Your task to perform on an android device: Open Maps and search for coffee Image 0: 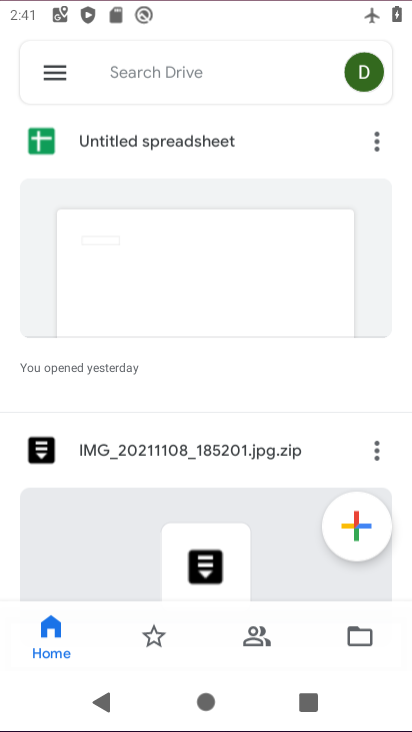
Step 0: drag from (225, 571) to (299, 292)
Your task to perform on an android device: Open Maps and search for coffee Image 1: 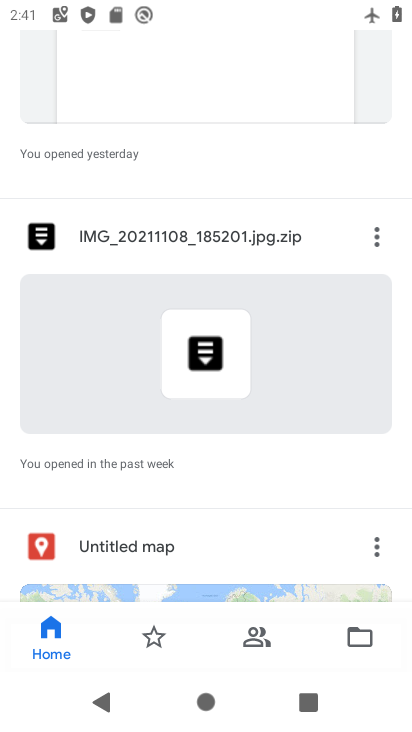
Step 1: drag from (225, 556) to (326, 227)
Your task to perform on an android device: Open Maps and search for coffee Image 2: 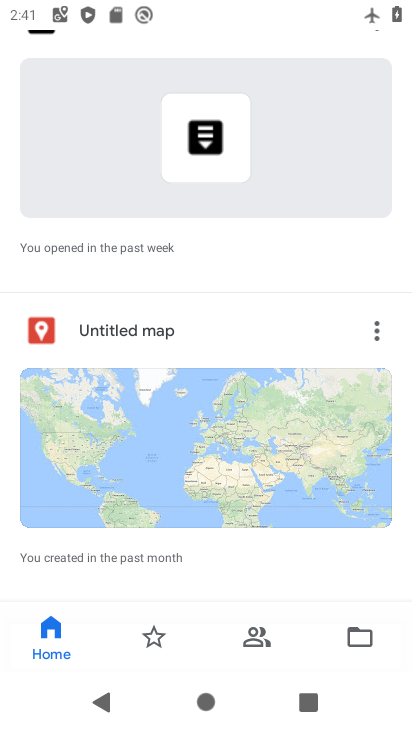
Step 2: drag from (191, 577) to (310, 288)
Your task to perform on an android device: Open Maps and search for coffee Image 3: 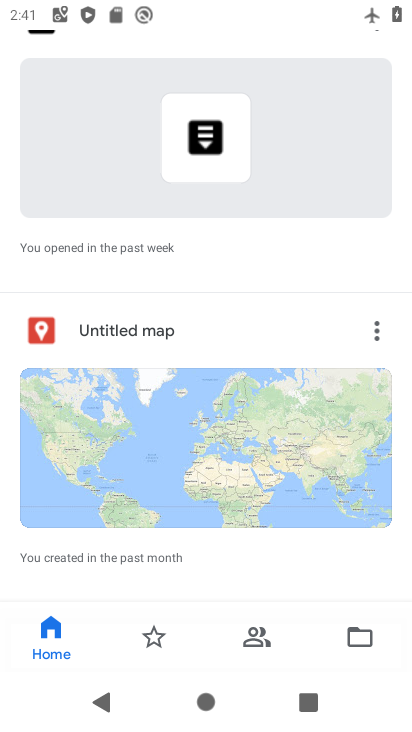
Step 3: drag from (218, 601) to (285, 316)
Your task to perform on an android device: Open Maps and search for coffee Image 4: 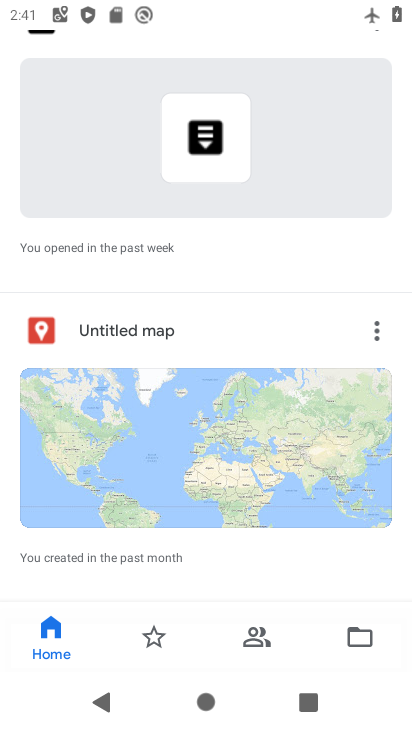
Step 4: drag from (234, 530) to (304, 263)
Your task to perform on an android device: Open Maps and search for coffee Image 5: 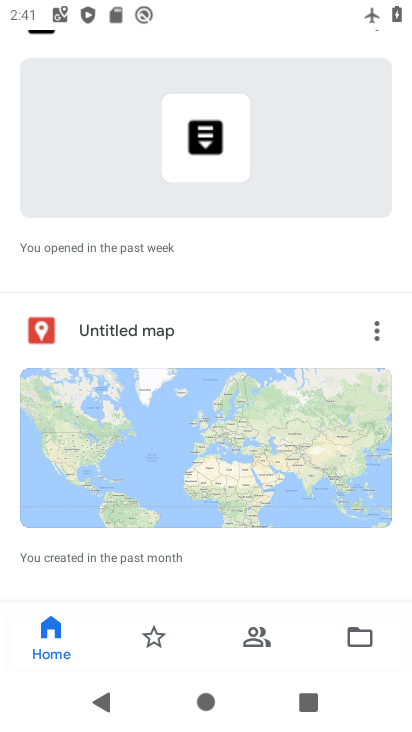
Step 5: drag from (229, 570) to (250, 289)
Your task to perform on an android device: Open Maps and search for coffee Image 6: 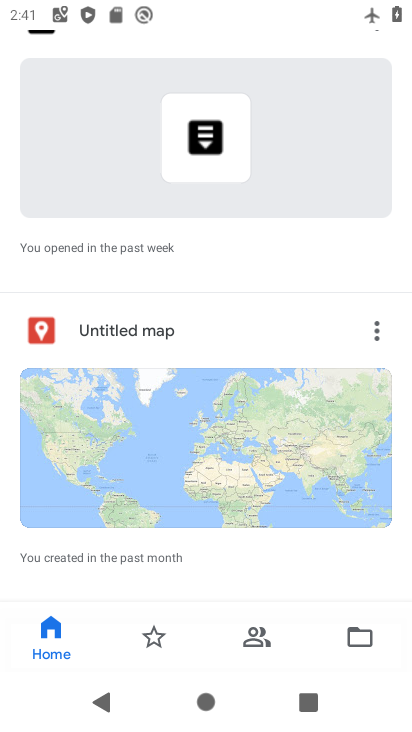
Step 6: drag from (258, 253) to (392, 698)
Your task to perform on an android device: Open Maps and search for coffee Image 7: 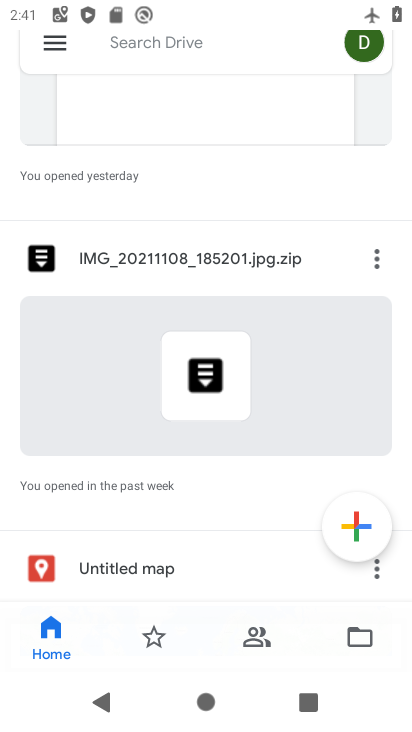
Step 7: drag from (233, 107) to (374, 708)
Your task to perform on an android device: Open Maps and search for coffee Image 8: 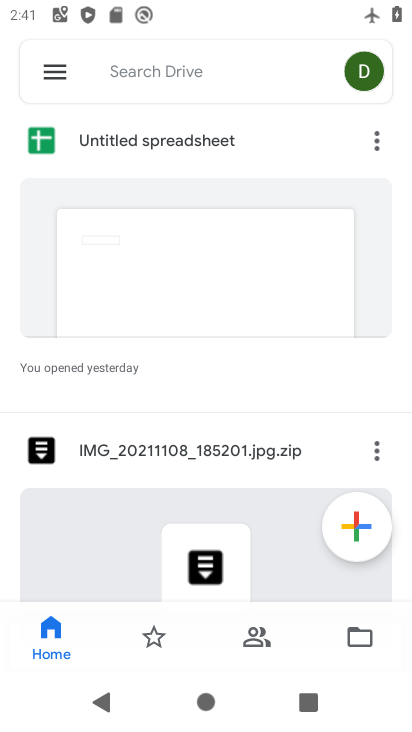
Step 8: press home button
Your task to perform on an android device: Open Maps and search for coffee Image 9: 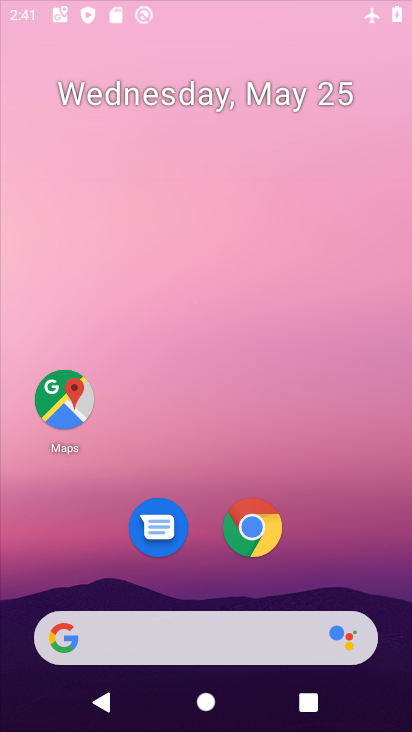
Step 9: drag from (205, 552) to (262, 145)
Your task to perform on an android device: Open Maps and search for coffee Image 10: 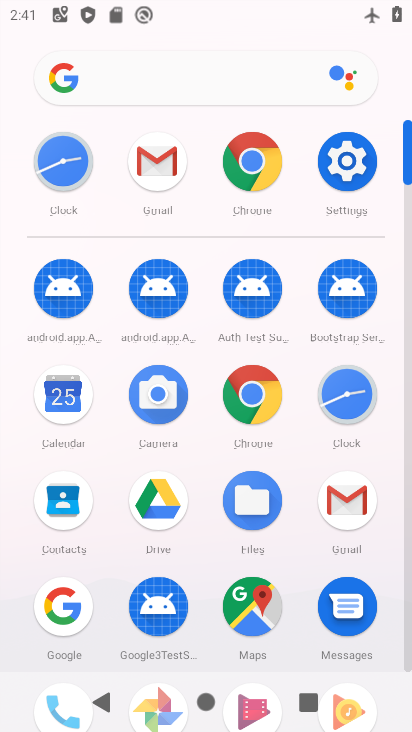
Step 10: click (140, 61)
Your task to perform on an android device: Open Maps and search for coffee Image 11: 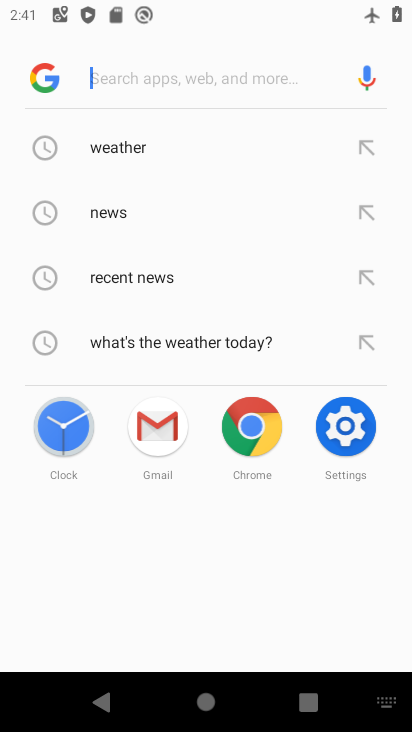
Step 11: press home button
Your task to perform on an android device: Open Maps and search for coffee Image 12: 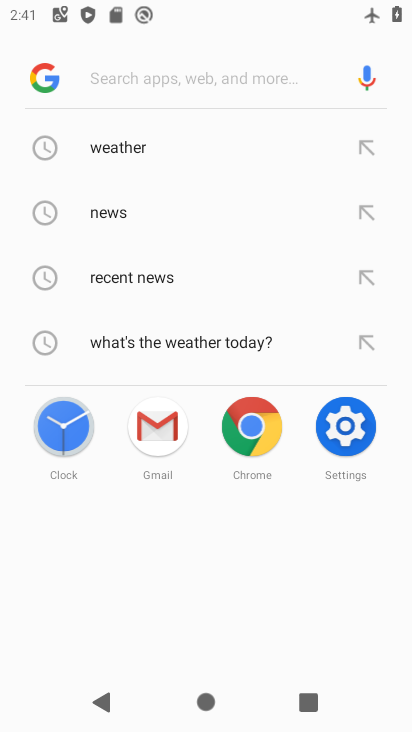
Step 12: press home button
Your task to perform on an android device: Open Maps and search for coffee Image 13: 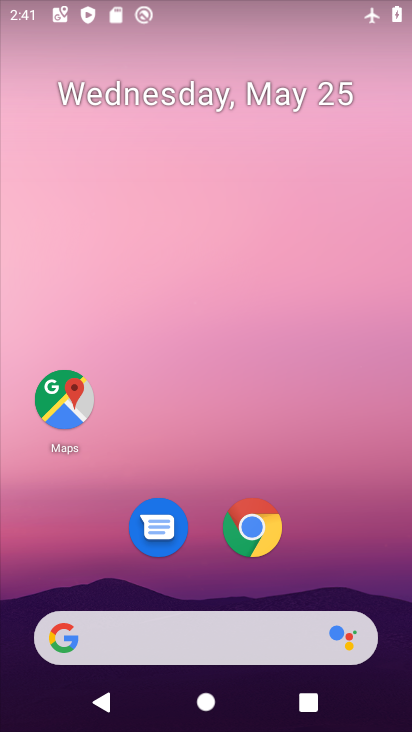
Step 13: drag from (194, 525) to (225, 125)
Your task to perform on an android device: Open Maps and search for coffee Image 14: 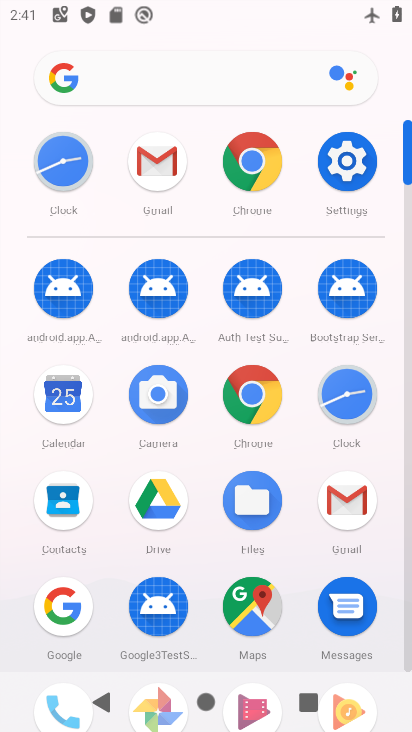
Step 14: click (262, 610)
Your task to perform on an android device: Open Maps and search for coffee Image 15: 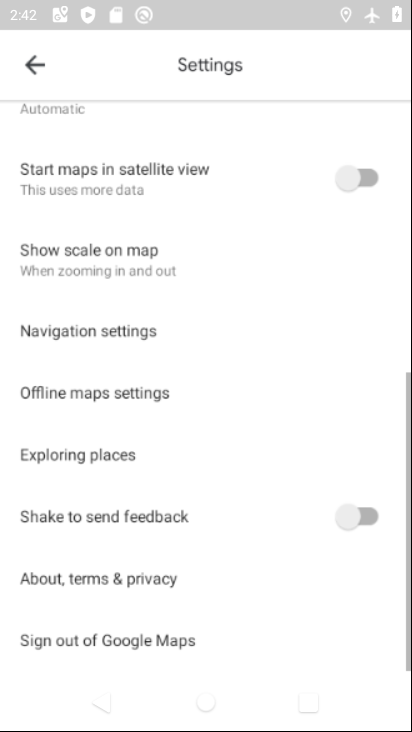
Step 15: click (46, 74)
Your task to perform on an android device: Open Maps and search for coffee Image 16: 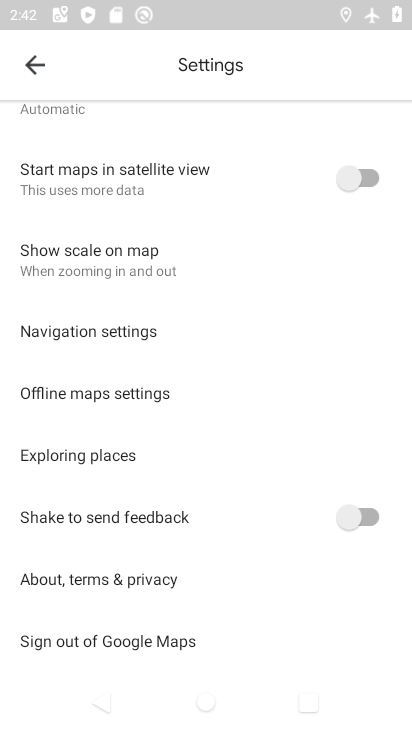
Step 16: click (29, 68)
Your task to perform on an android device: Open Maps and search for coffee Image 17: 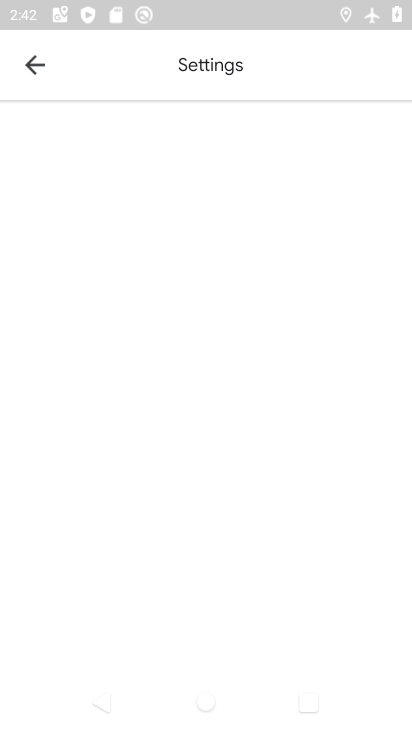
Step 17: click (23, 50)
Your task to perform on an android device: Open Maps and search for coffee Image 18: 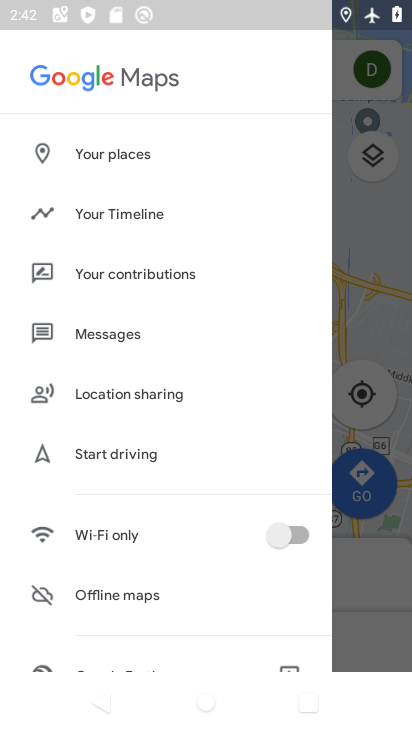
Step 18: click (364, 231)
Your task to perform on an android device: Open Maps and search for coffee Image 19: 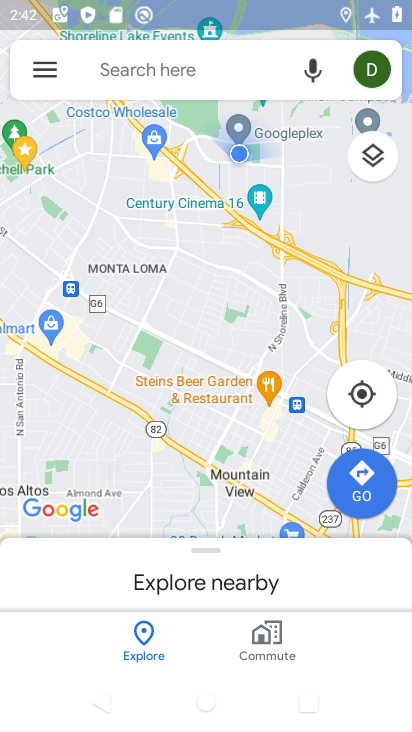
Step 19: click (118, 76)
Your task to perform on an android device: Open Maps and search for coffee Image 20: 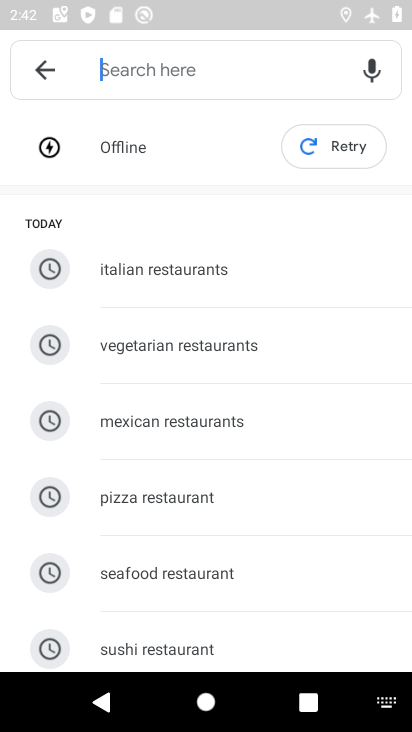
Step 20: type "coffee"
Your task to perform on an android device: Open Maps and search for coffee Image 21: 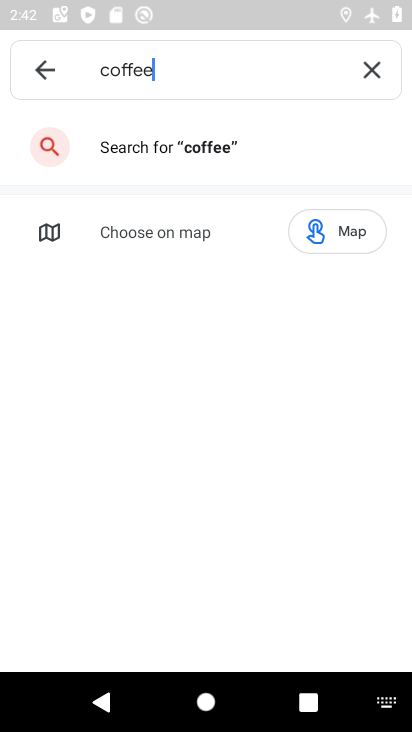
Step 21: click (194, 163)
Your task to perform on an android device: Open Maps and search for coffee Image 22: 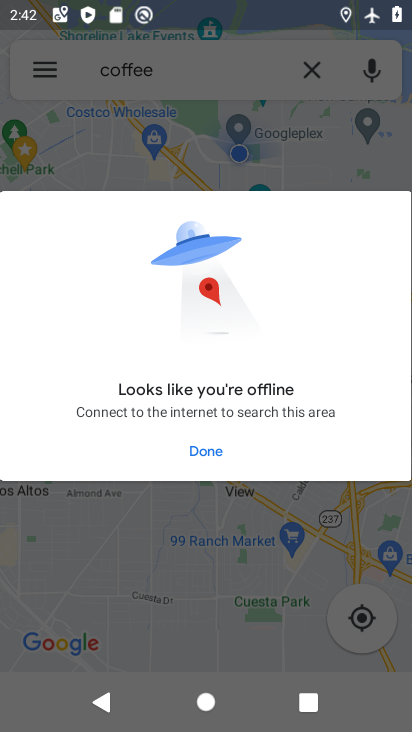
Step 22: click (201, 443)
Your task to perform on an android device: Open Maps and search for coffee Image 23: 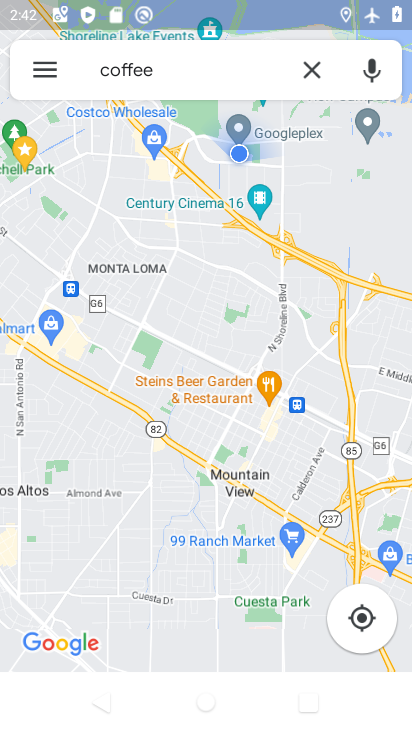
Step 23: task complete